Your task to perform on an android device: Open location settings Image 0: 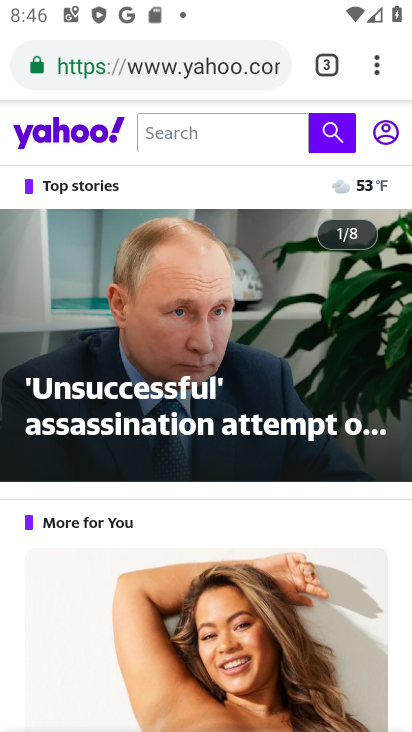
Step 0: press home button
Your task to perform on an android device: Open location settings Image 1: 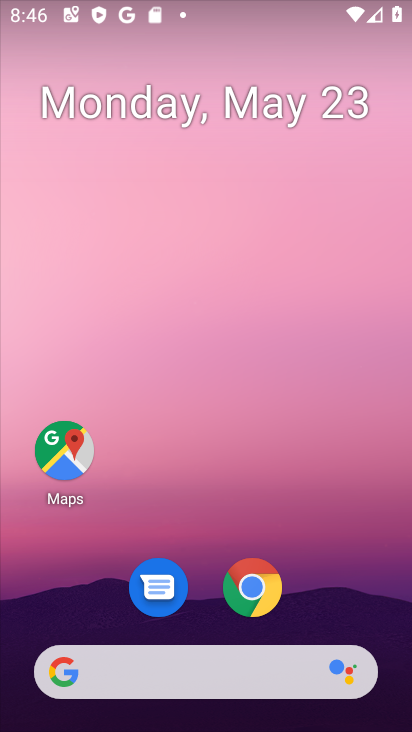
Step 1: drag from (185, 509) to (247, 96)
Your task to perform on an android device: Open location settings Image 2: 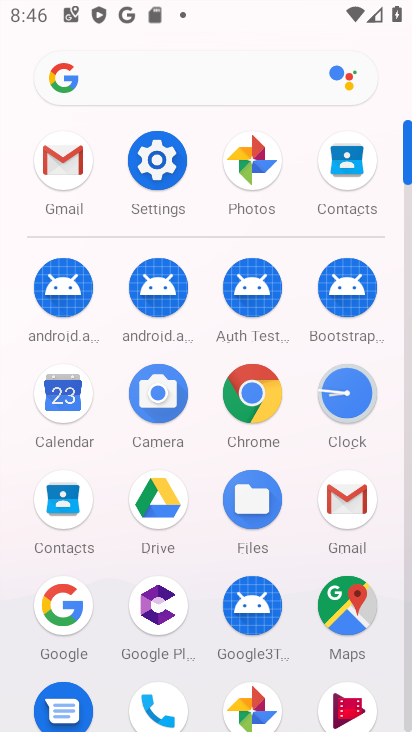
Step 2: click (155, 152)
Your task to perform on an android device: Open location settings Image 3: 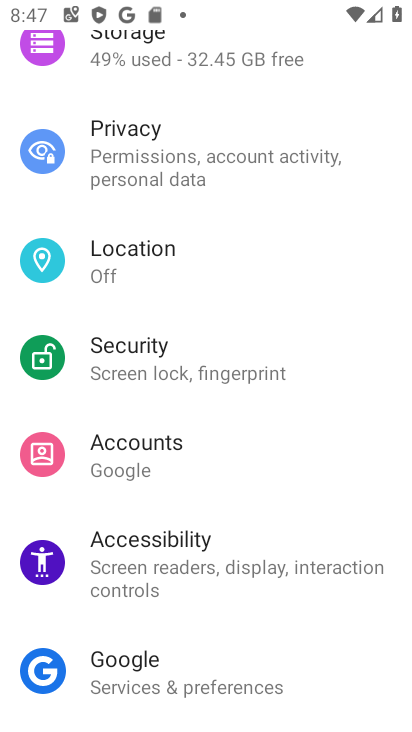
Step 3: click (146, 268)
Your task to perform on an android device: Open location settings Image 4: 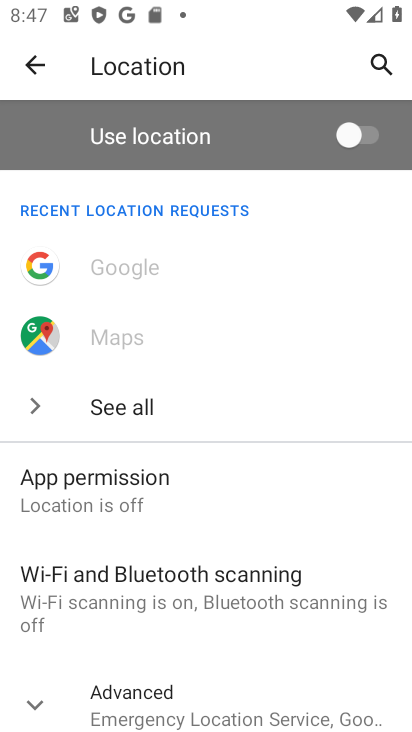
Step 4: task complete